Your task to perform on an android device: Open Wikipedia Image 0: 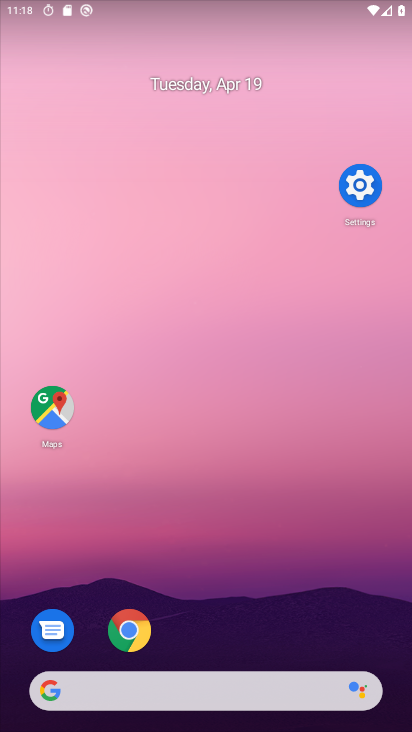
Step 0: drag from (250, 460) to (255, 135)
Your task to perform on an android device: Open Wikipedia Image 1: 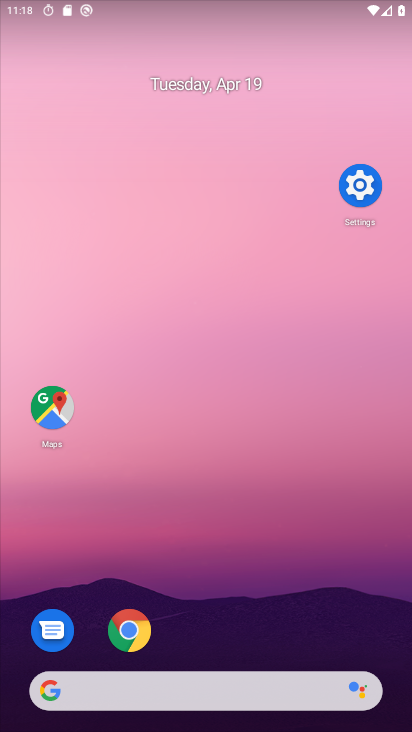
Step 1: drag from (234, 481) to (383, 147)
Your task to perform on an android device: Open Wikipedia Image 2: 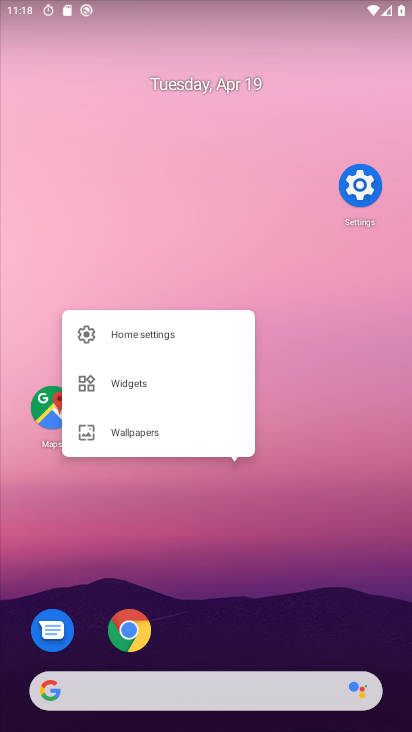
Step 2: click (146, 624)
Your task to perform on an android device: Open Wikipedia Image 3: 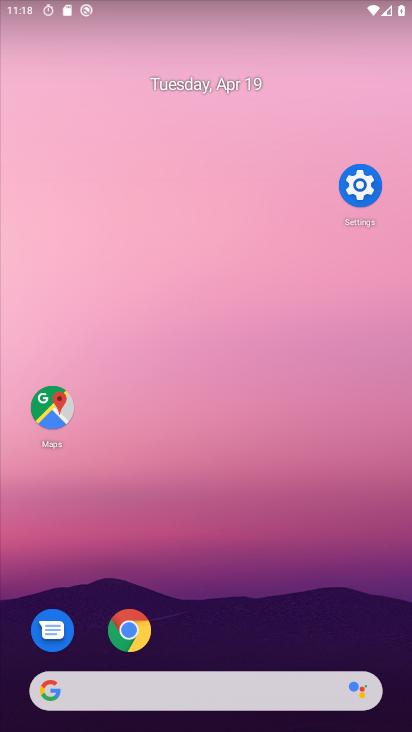
Step 3: click (141, 643)
Your task to perform on an android device: Open Wikipedia Image 4: 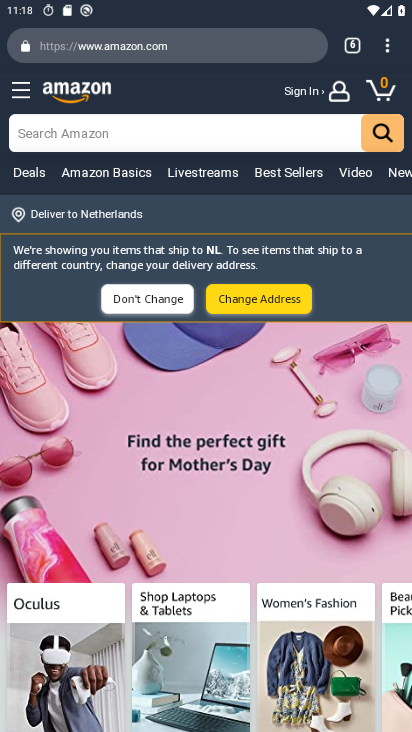
Step 4: drag from (354, 43) to (355, 237)
Your task to perform on an android device: Open Wikipedia Image 5: 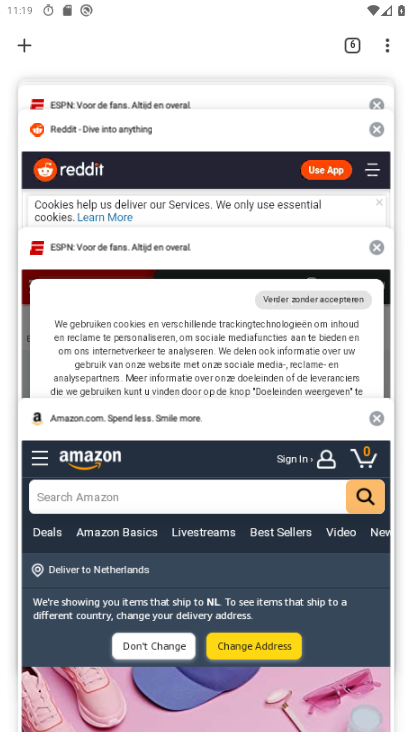
Step 5: click (30, 45)
Your task to perform on an android device: Open Wikipedia Image 6: 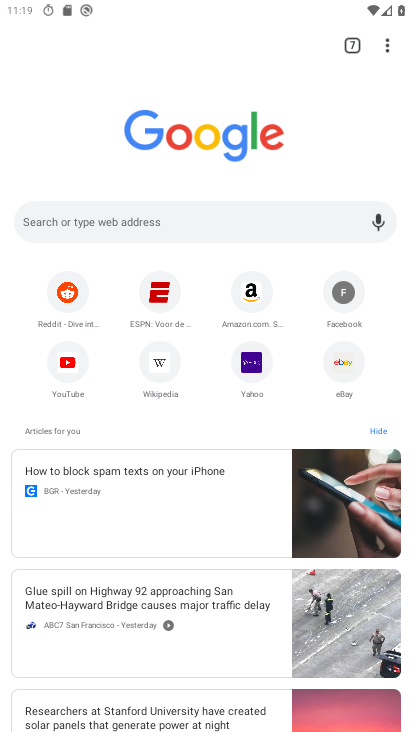
Step 6: click (162, 371)
Your task to perform on an android device: Open Wikipedia Image 7: 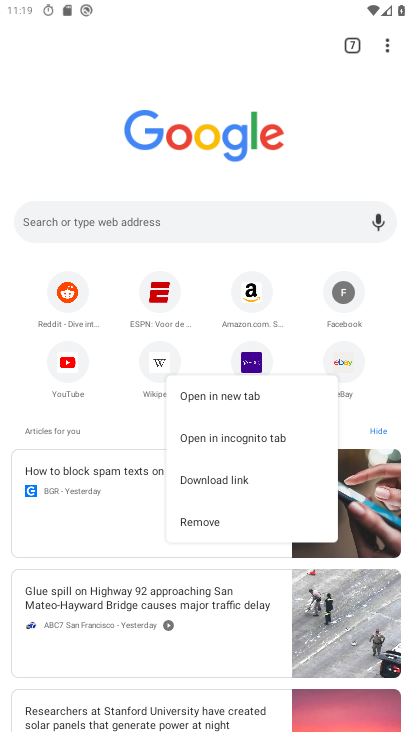
Step 7: click (155, 366)
Your task to perform on an android device: Open Wikipedia Image 8: 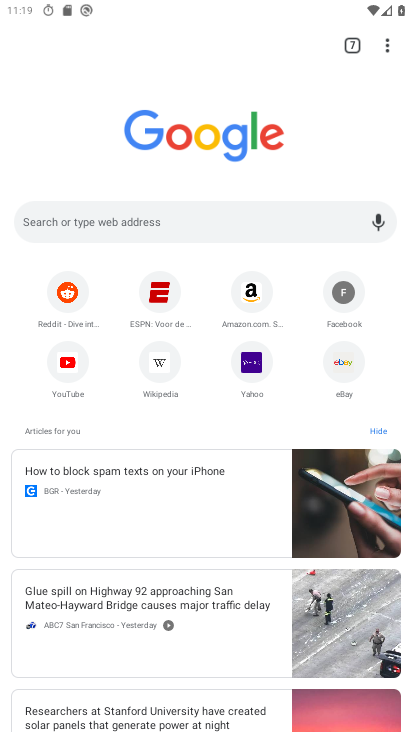
Step 8: click (158, 379)
Your task to perform on an android device: Open Wikipedia Image 9: 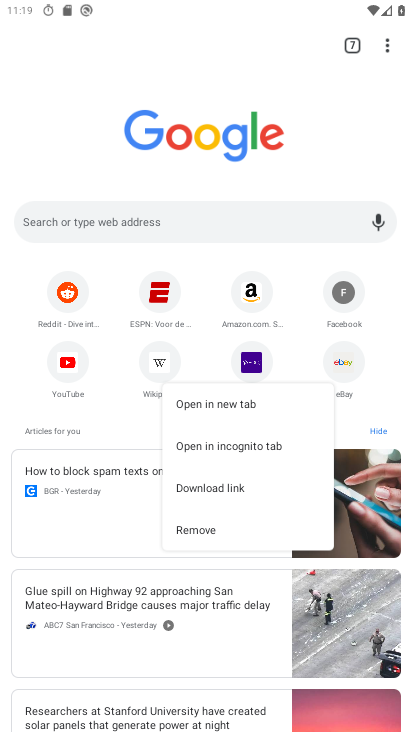
Step 9: click (169, 362)
Your task to perform on an android device: Open Wikipedia Image 10: 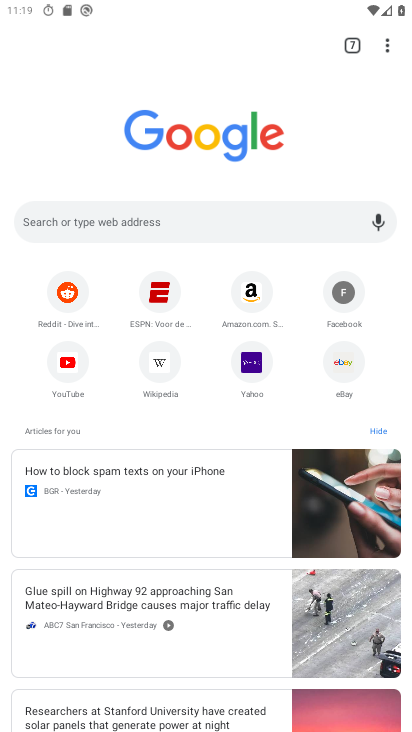
Step 10: click (169, 362)
Your task to perform on an android device: Open Wikipedia Image 11: 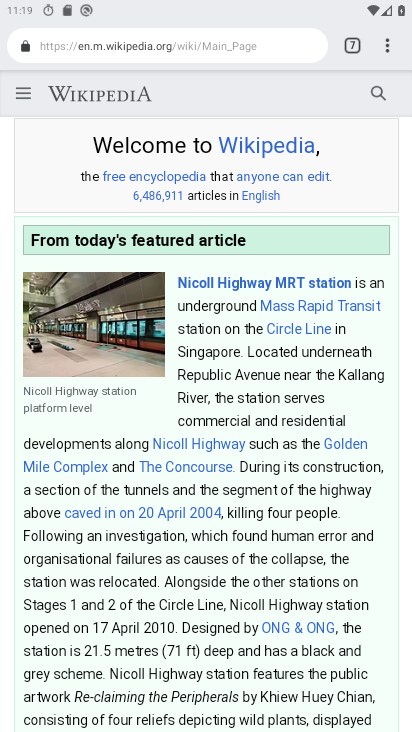
Step 11: task complete